Your task to perform on an android device: turn smart compose on in the gmail app Image 0: 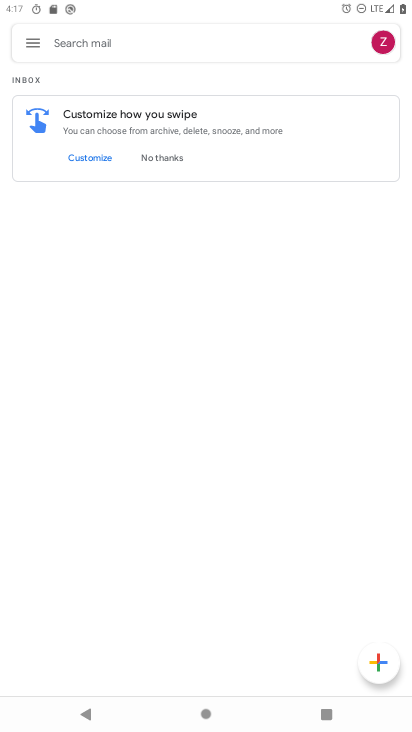
Step 0: click (34, 47)
Your task to perform on an android device: turn smart compose on in the gmail app Image 1: 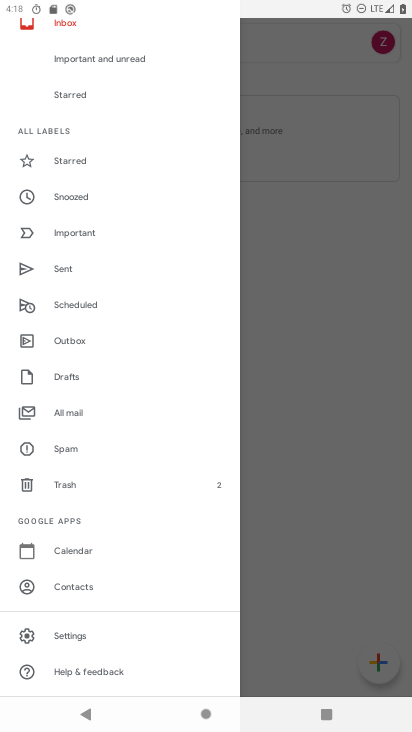
Step 1: click (71, 635)
Your task to perform on an android device: turn smart compose on in the gmail app Image 2: 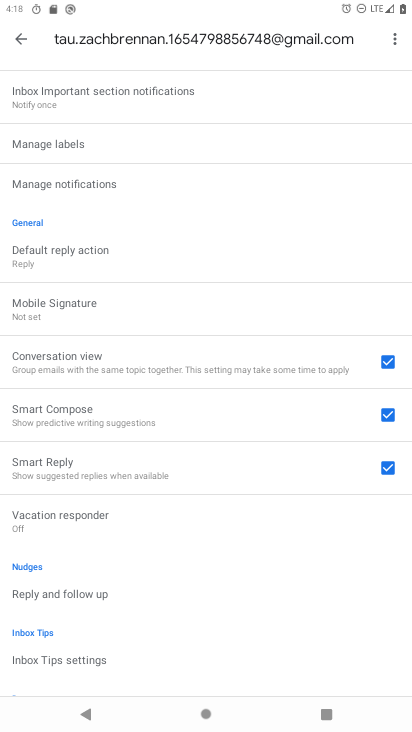
Step 2: task complete